Your task to perform on an android device: refresh tabs in the chrome app Image 0: 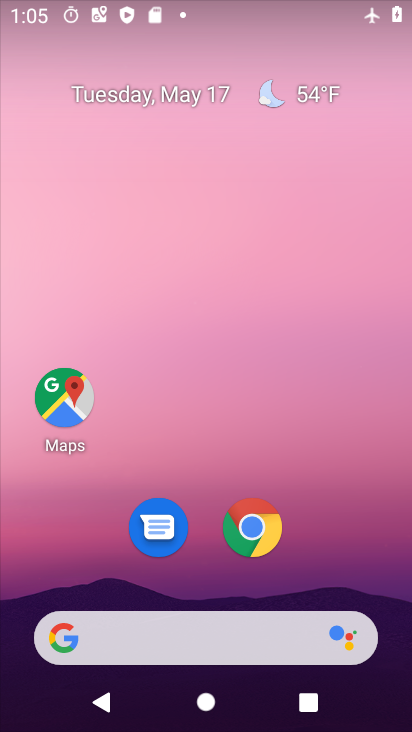
Step 0: drag from (233, 661) to (213, 84)
Your task to perform on an android device: refresh tabs in the chrome app Image 1: 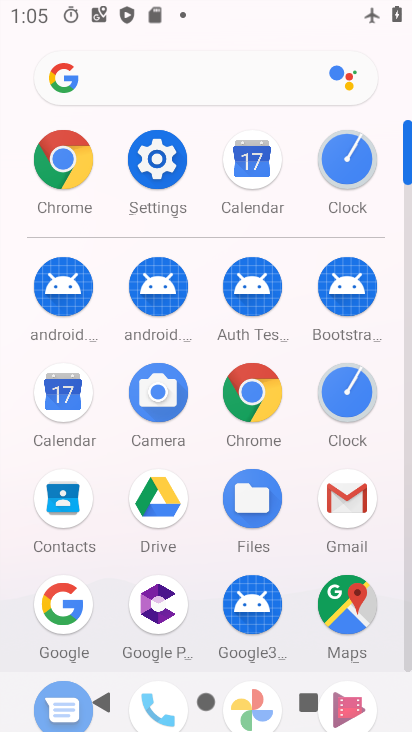
Step 1: click (84, 150)
Your task to perform on an android device: refresh tabs in the chrome app Image 2: 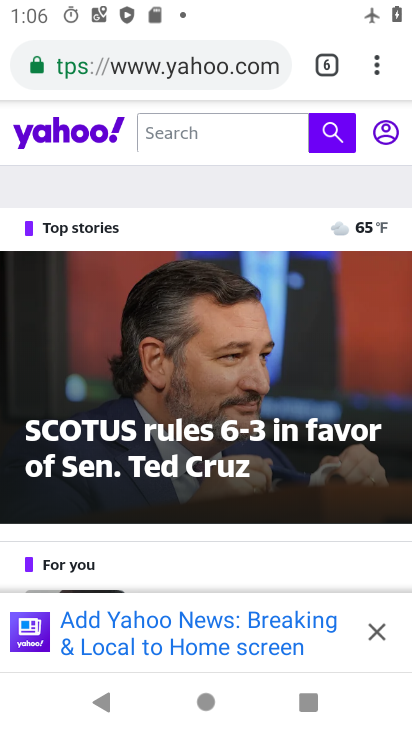
Step 2: click (379, 65)
Your task to perform on an android device: refresh tabs in the chrome app Image 3: 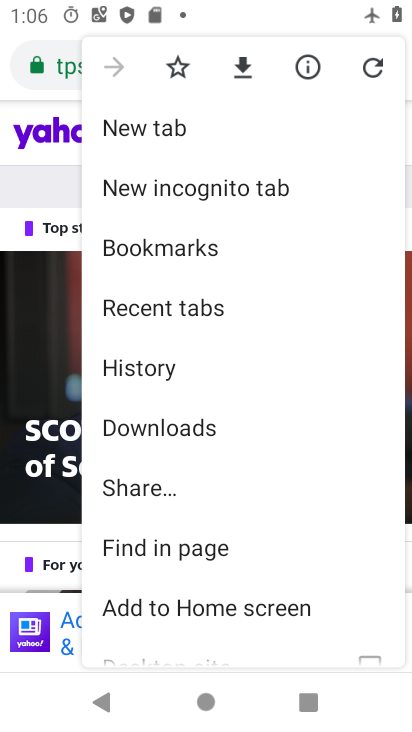
Step 3: click (373, 72)
Your task to perform on an android device: refresh tabs in the chrome app Image 4: 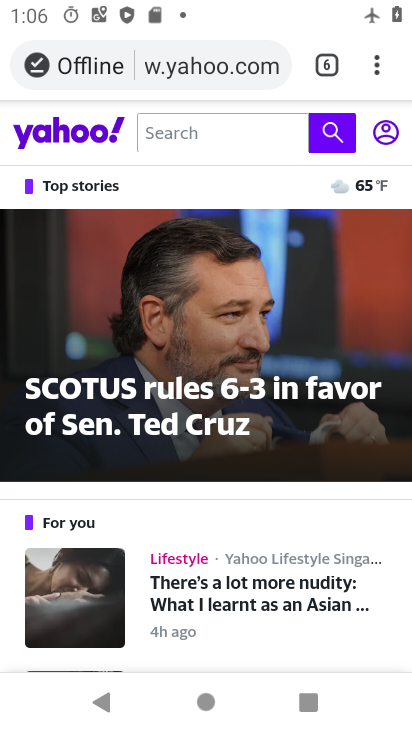
Step 4: task complete